Your task to perform on an android device: Open CNN.com Image 0: 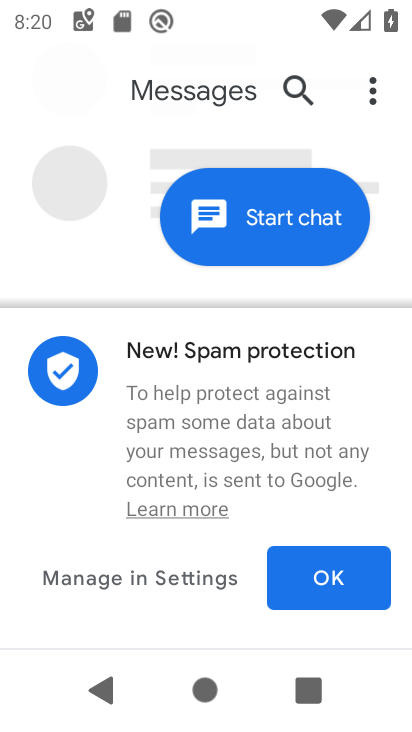
Step 0: press home button
Your task to perform on an android device: Open CNN.com Image 1: 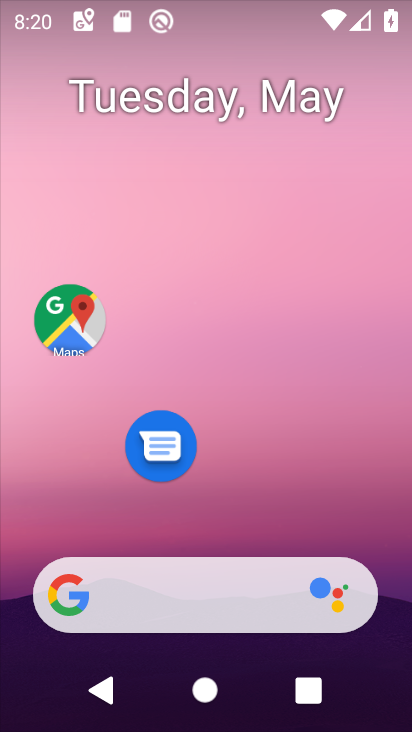
Step 1: drag from (203, 524) to (226, 16)
Your task to perform on an android device: Open CNN.com Image 2: 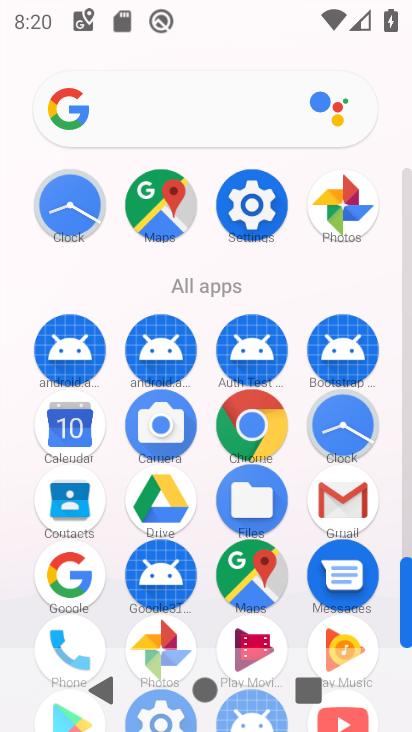
Step 2: click (253, 439)
Your task to perform on an android device: Open CNN.com Image 3: 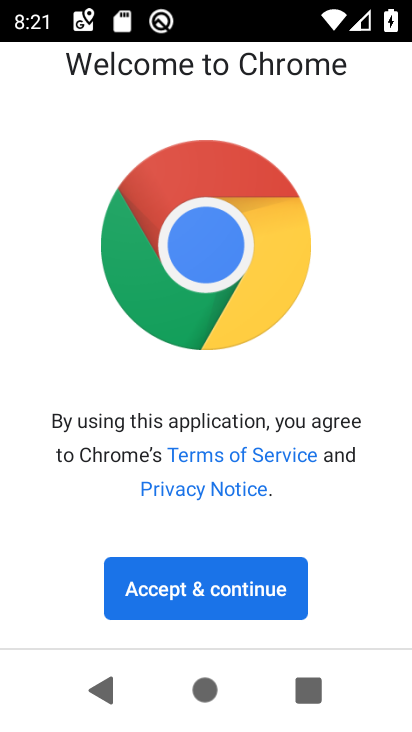
Step 3: click (204, 583)
Your task to perform on an android device: Open CNN.com Image 4: 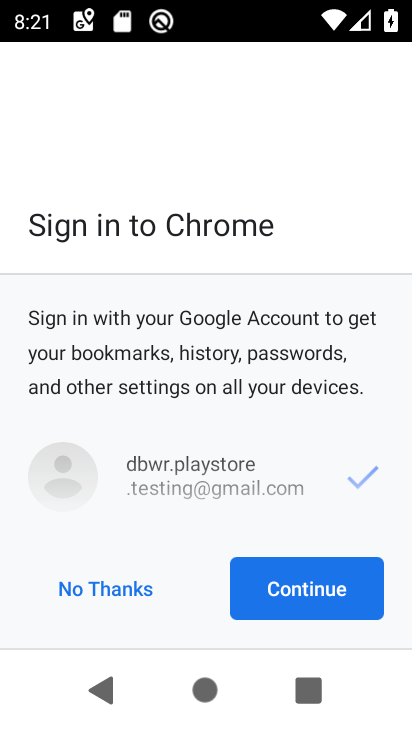
Step 4: click (330, 579)
Your task to perform on an android device: Open CNN.com Image 5: 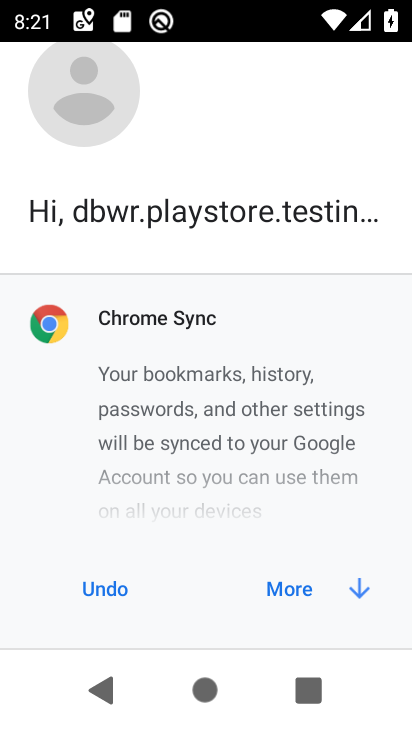
Step 5: click (335, 589)
Your task to perform on an android device: Open CNN.com Image 6: 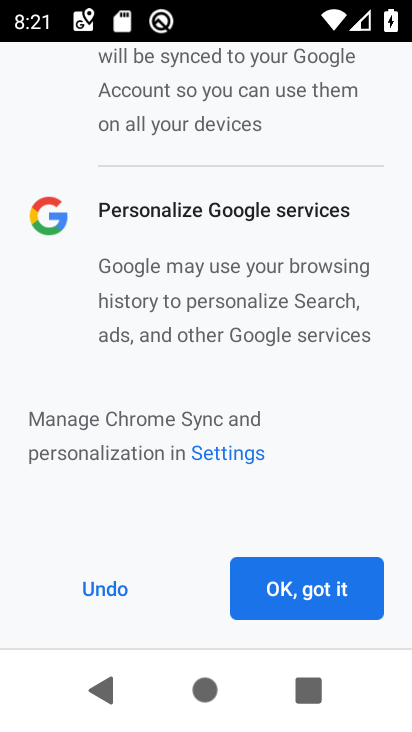
Step 6: click (335, 586)
Your task to perform on an android device: Open CNN.com Image 7: 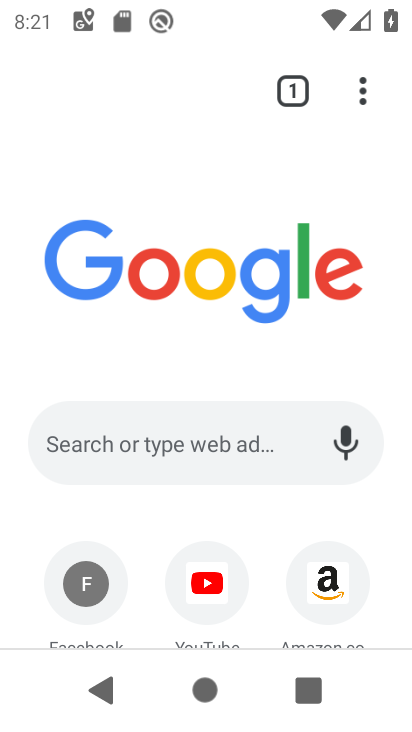
Step 7: click (167, 446)
Your task to perform on an android device: Open CNN.com Image 8: 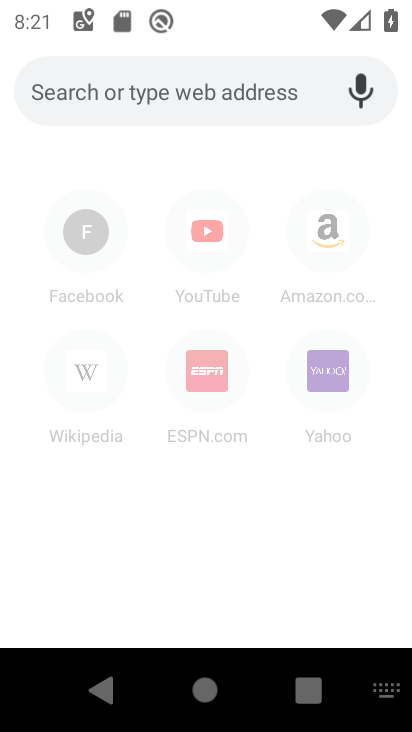
Step 8: type "cnn"
Your task to perform on an android device: Open CNN.com Image 9: 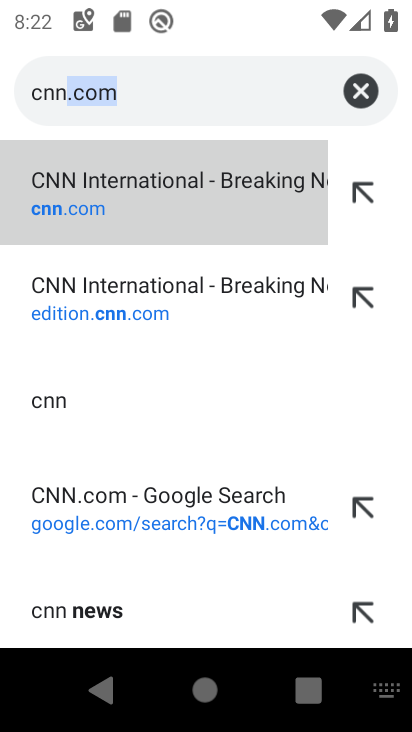
Step 9: click (114, 274)
Your task to perform on an android device: Open CNN.com Image 10: 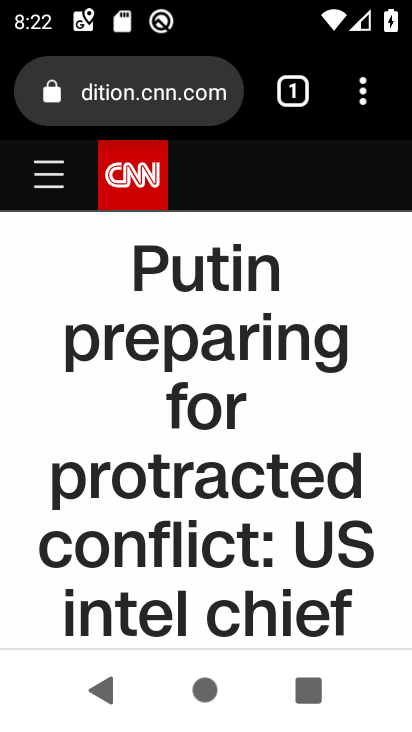
Step 10: task complete